Your task to perform on an android device: Open Youtube and go to "Your channel" Image 0: 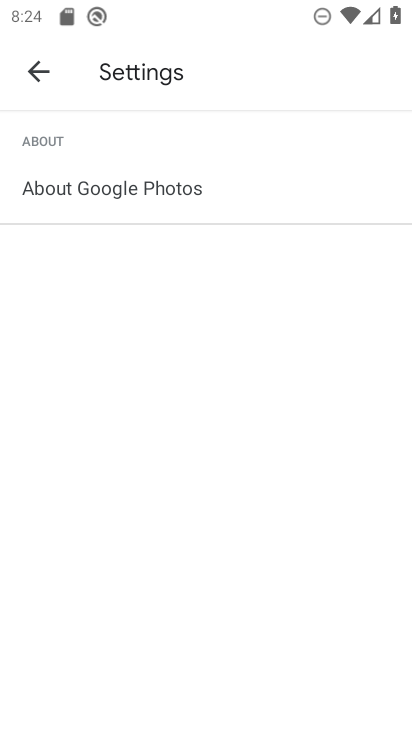
Step 0: press home button
Your task to perform on an android device: Open Youtube and go to "Your channel" Image 1: 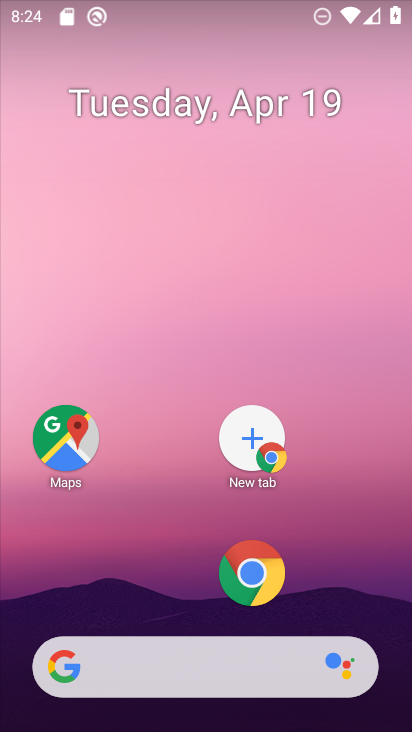
Step 1: click (398, 474)
Your task to perform on an android device: Open Youtube and go to "Your channel" Image 2: 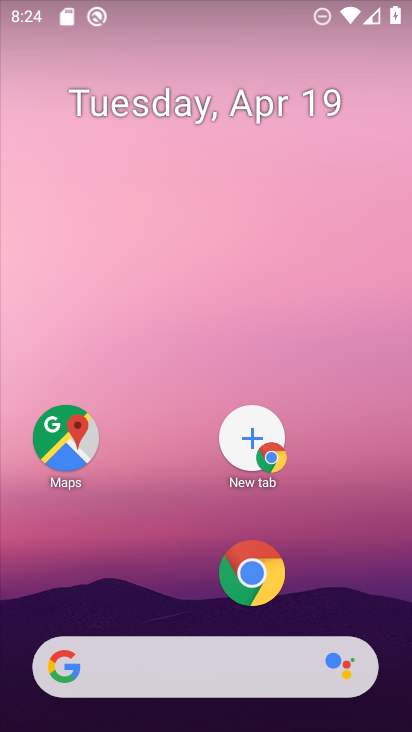
Step 2: drag from (189, 607) to (224, 3)
Your task to perform on an android device: Open Youtube and go to "Your channel" Image 3: 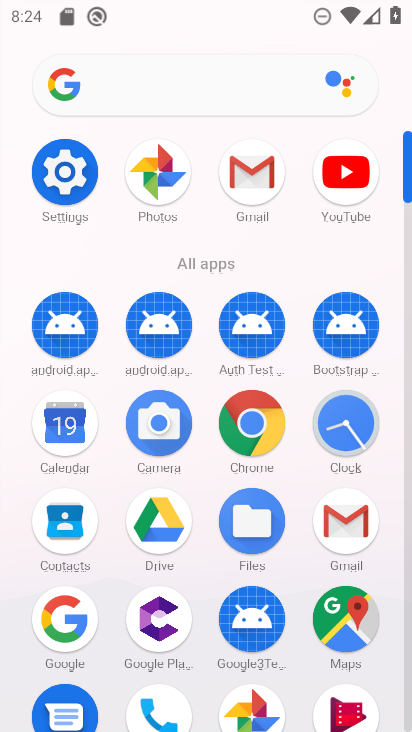
Step 3: click (348, 189)
Your task to perform on an android device: Open Youtube and go to "Your channel" Image 4: 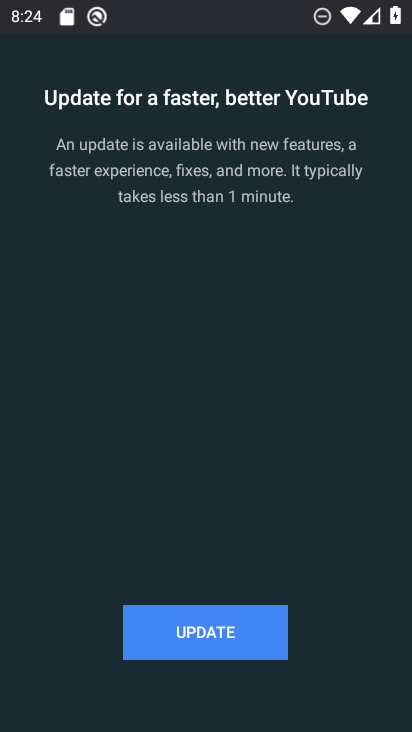
Step 4: click (224, 641)
Your task to perform on an android device: Open Youtube and go to "Your channel" Image 5: 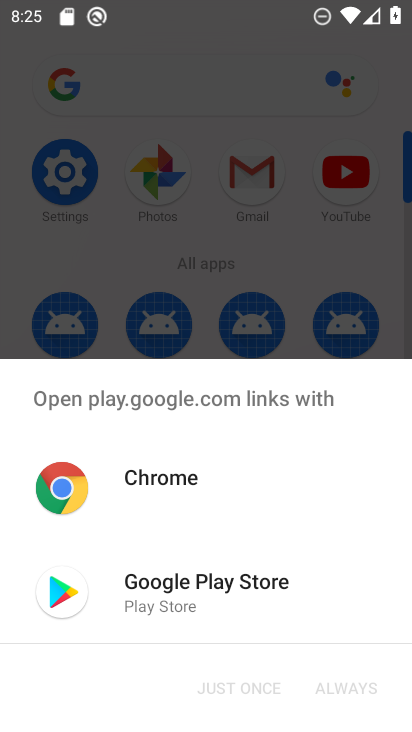
Step 5: click (159, 619)
Your task to perform on an android device: Open Youtube and go to "Your channel" Image 6: 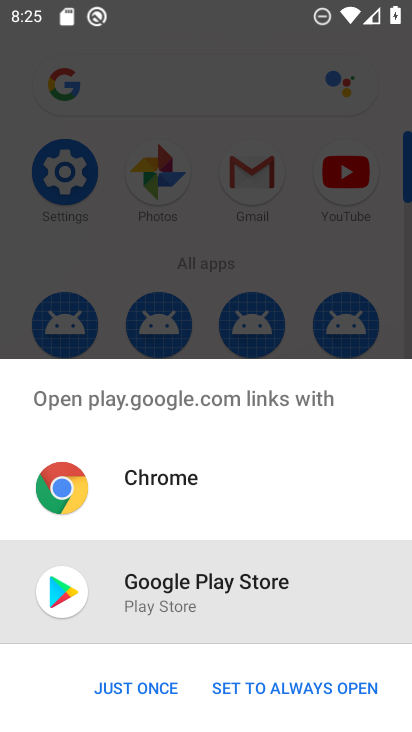
Step 6: click (155, 700)
Your task to perform on an android device: Open Youtube and go to "Your channel" Image 7: 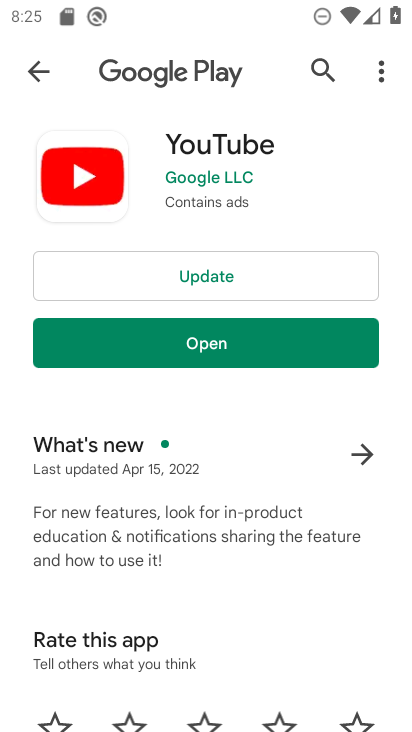
Step 7: click (281, 264)
Your task to perform on an android device: Open Youtube and go to "Your channel" Image 8: 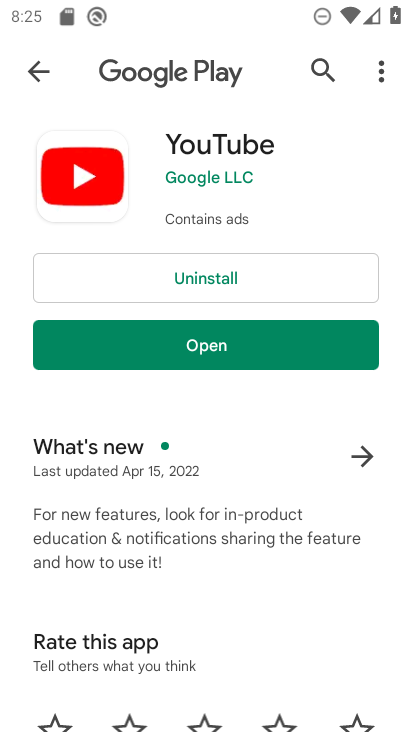
Step 8: click (241, 357)
Your task to perform on an android device: Open Youtube and go to "Your channel" Image 9: 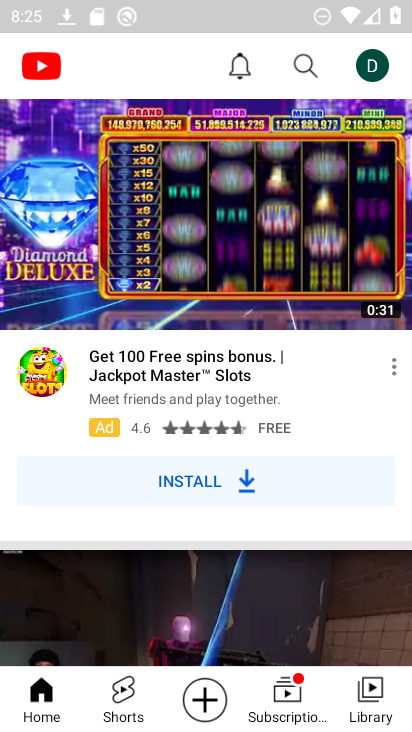
Step 9: click (313, 63)
Your task to perform on an android device: Open Youtube and go to "Your channel" Image 10: 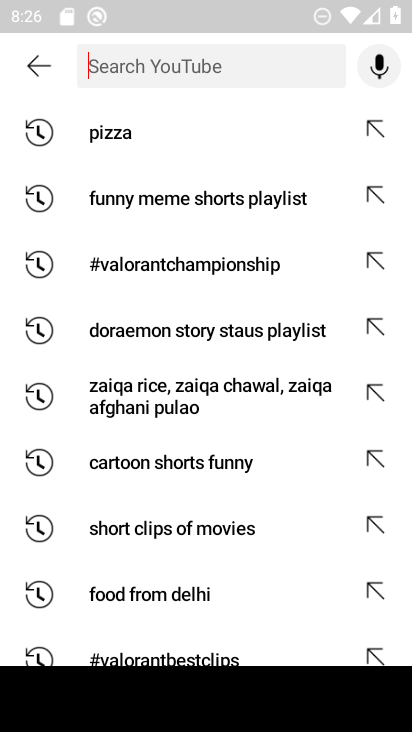
Step 10: type "your channel"
Your task to perform on an android device: Open Youtube and go to "Your channel" Image 11: 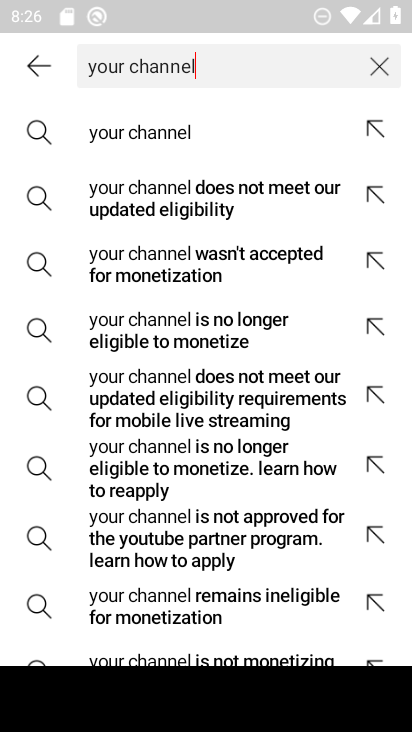
Step 11: click (214, 134)
Your task to perform on an android device: Open Youtube and go to "Your channel" Image 12: 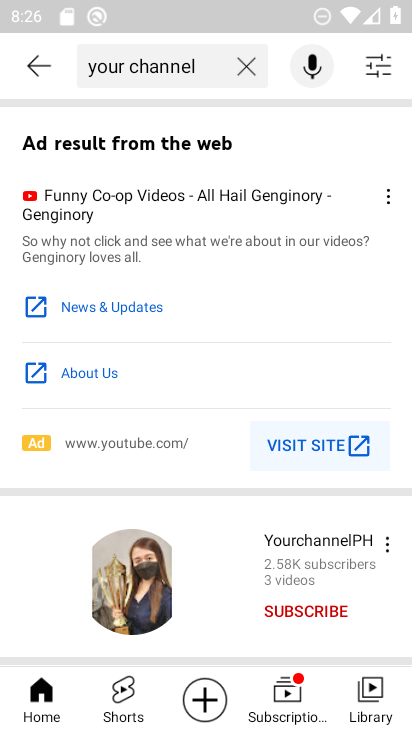
Step 12: task complete